Your task to perform on an android device: Do I have any events today? Image 0: 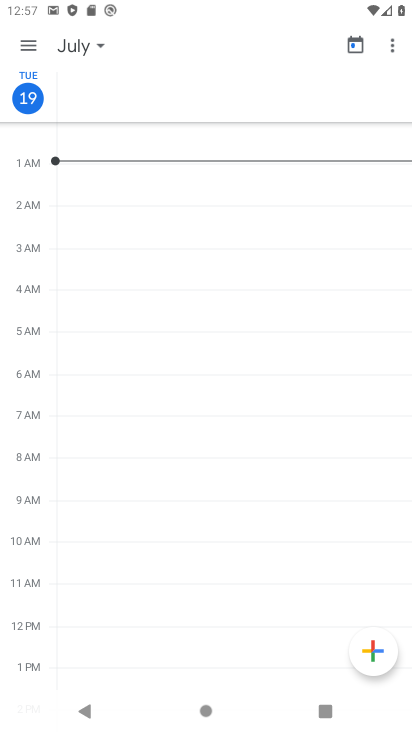
Step 0: press home button
Your task to perform on an android device: Do I have any events today? Image 1: 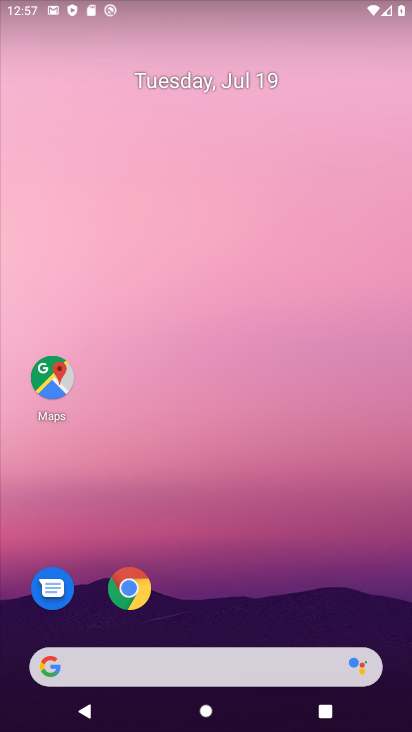
Step 1: drag from (33, 690) to (265, 160)
Your task to perform on an android device: Do I have any events today? Image 2: 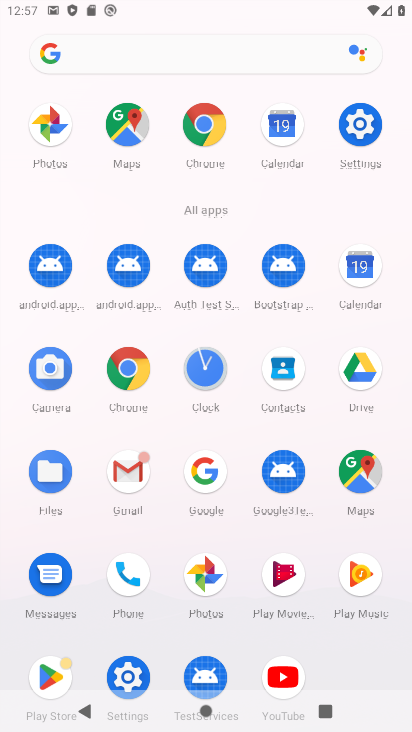
Step 2: click (368, 266)
Your task to perform on an android device: Do I have any events today? Image 3: 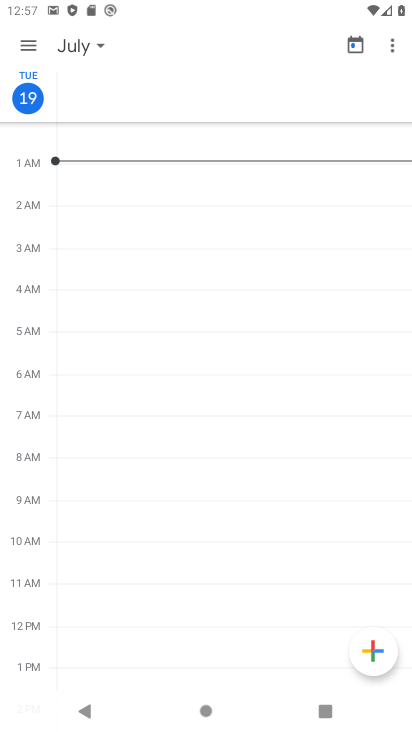
Step 3: click (80, 36)
Your task to perform on an android device: Do I have any events today? Image 4: 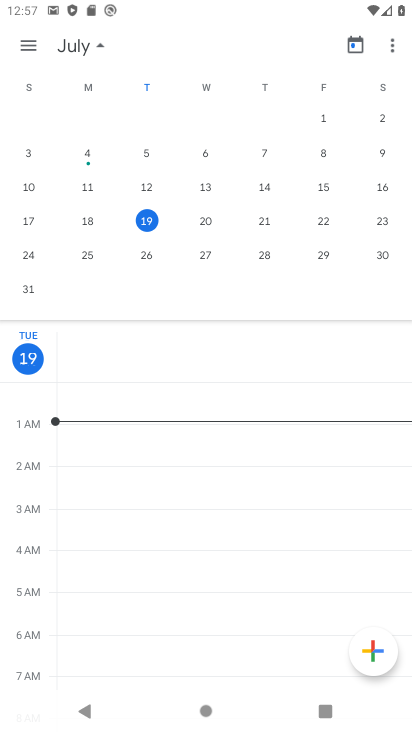
Step 4: click (33, 49)
Your task to perform on an android device: Do I have any events today? Image 5: 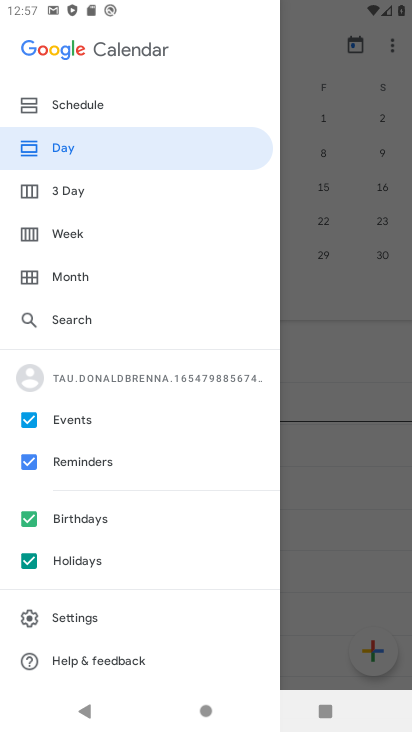
Step 5: click (86, 425)
Your task to perform on an android device: Do I have any events today? Image 6: 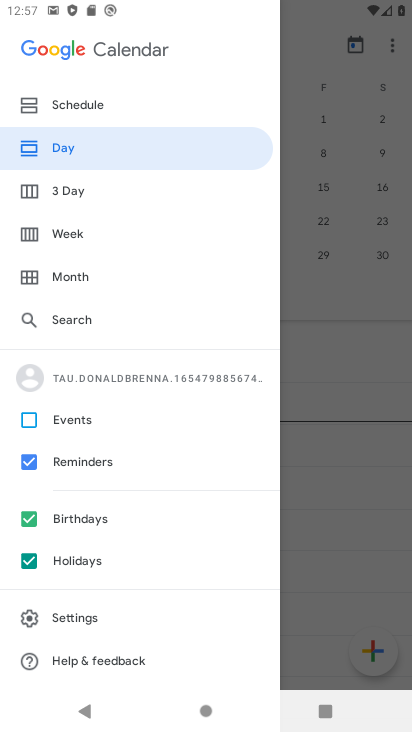
Step 6: click (85, 424)
Your task to perform on an android device: Do I have any events today? Image 7: 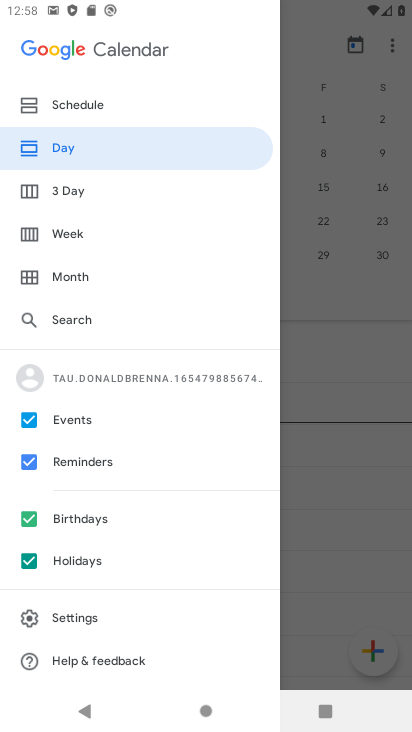
Step 7: click (357, 348)
Your task to perform on an android device: Do I have any events today? Image 8: 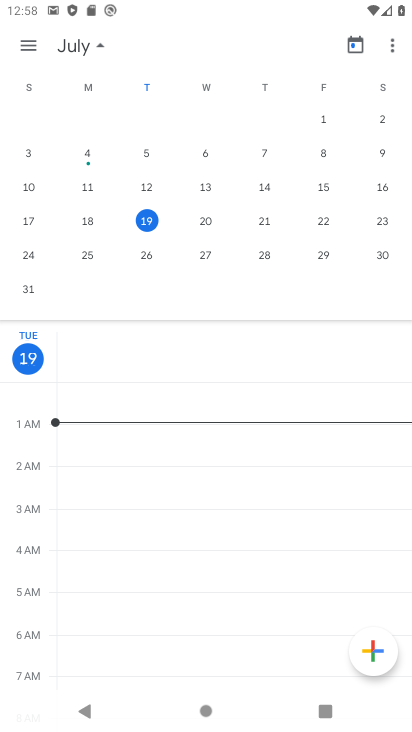
Step 8: task complete